Your task to perform on an android device: Open the map Image 0: 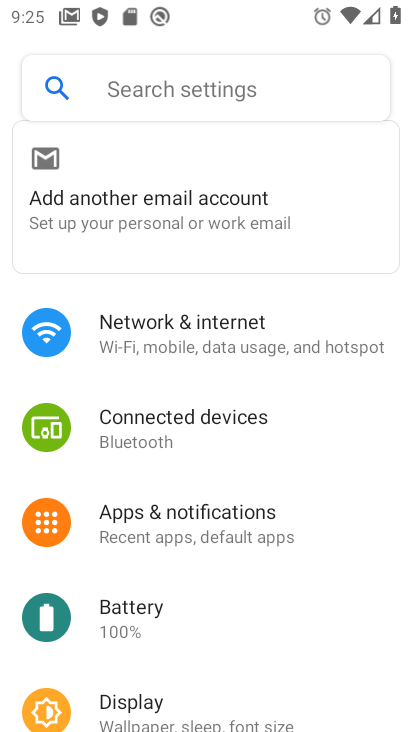
Step 0: press home button
Your task to perform on an android device: Open the map Image 1: 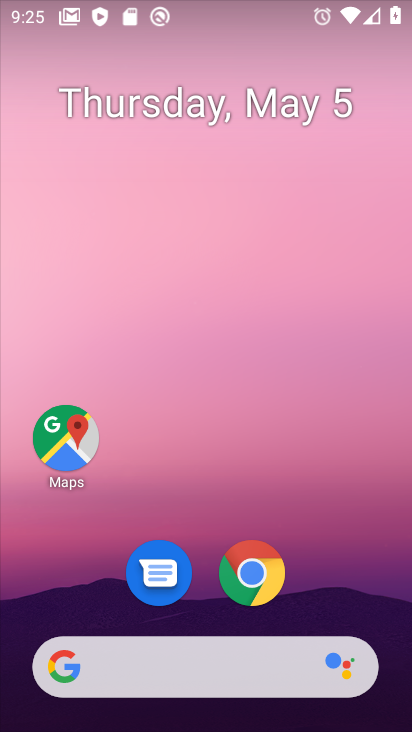
Step 1: click (59, 435)
Your task to perform on an android device: Open the map Image 2: 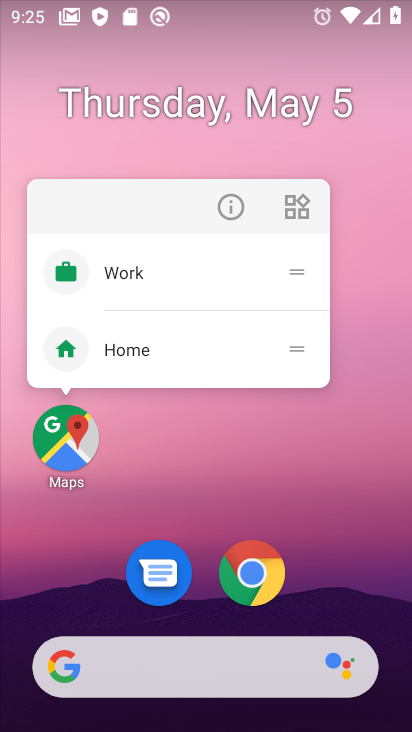
Step 2: click (65, 433)
Your task to perform on an android device: Open the map Image 3: 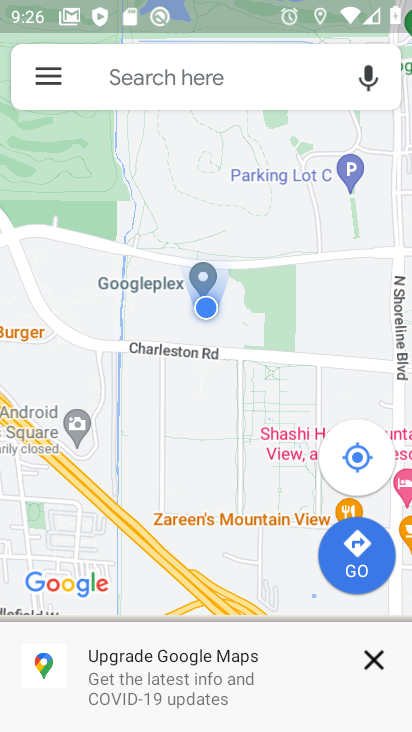
Step 3: task complete